Your task to perform on an android device: turn off priority inbox in the gmail app Image 0: 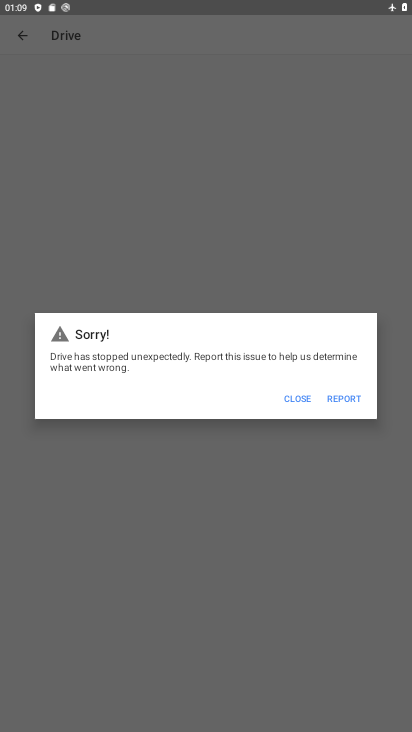
Step 0: press home button
Your task to perform on an android device: turn off priority inbox in the gmail app Image 1: 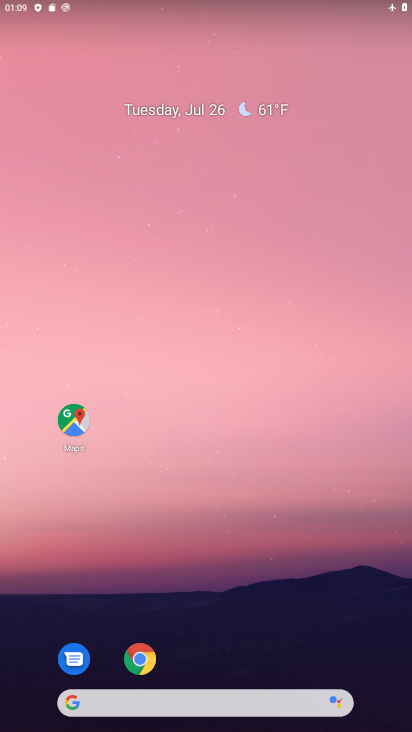
Step 1: drag from (245, 560) to (281, 95)
Your task to perform on an android device: turn off priority inbox in the gmail app Image 2: 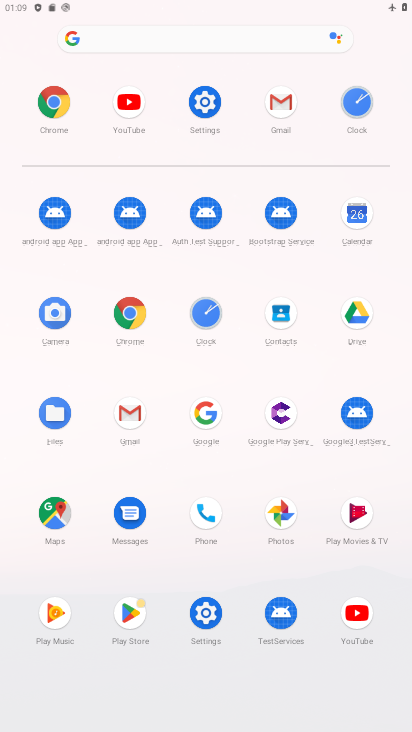
Step 2: click (282, 90)
Your task to perform on an android device: turn off priority inbox in the gmail app Image 3: 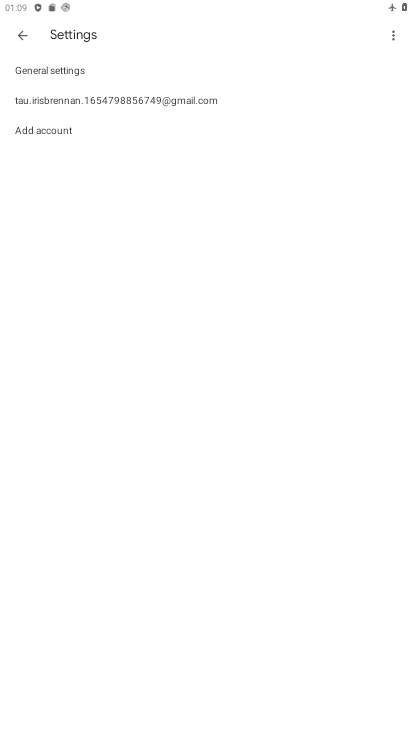
Step 3: click (75, 90)
Your task to perform on an android device: turn off priority inbox in the gmail app Image 4: 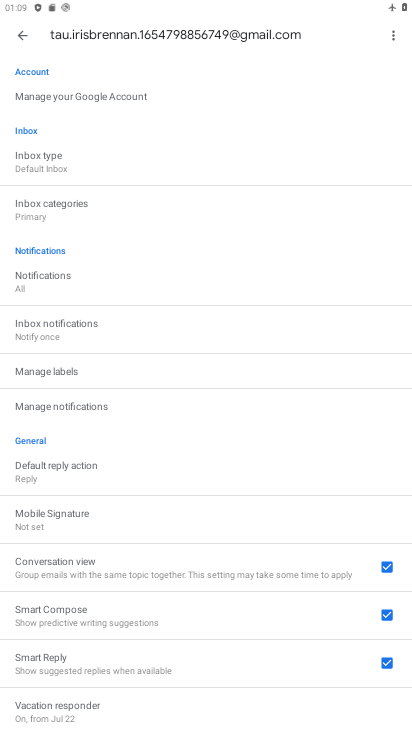
Step 4: click (46, 164)
Your task to perform on an android device: turn off priority inbox in the gmail app Image 5: 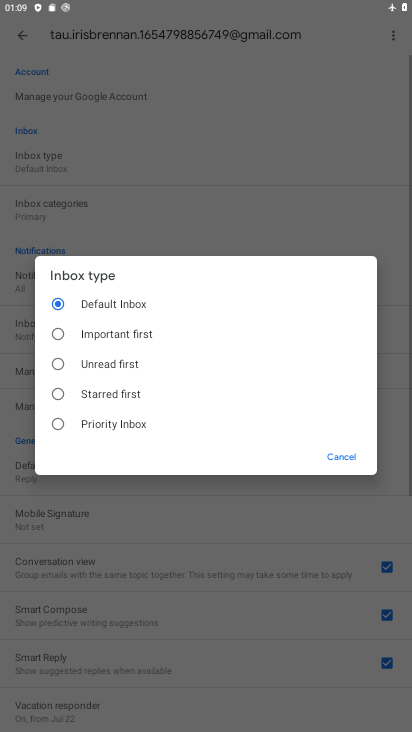
Step 5: task complete